Your task to perform on an android device: turn on the 12-hour format for clock Image 0: 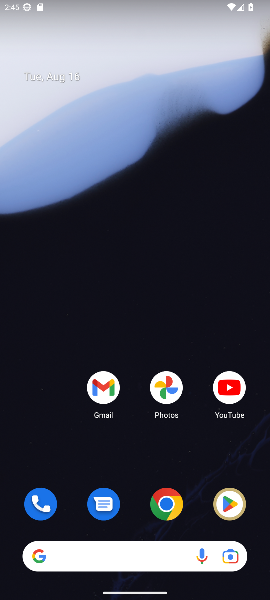
Step 0: drag from (93, 543) to (77, 316)
Your task to perform on an android device: turn on the 12-hour format for clock Image 1: 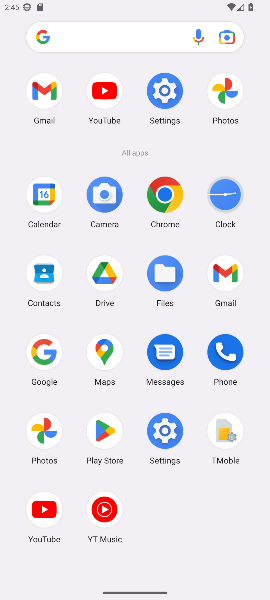
Step 1: click (214, 193)
Your task to perform on an android device: turn on the 12-hour format for clock Image 2: 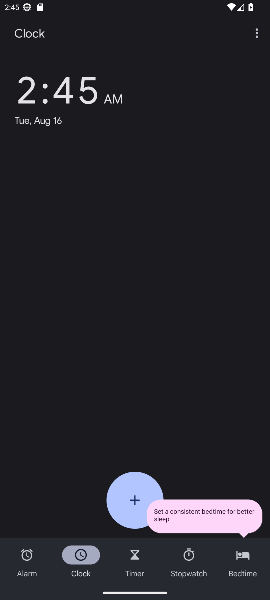
Step 2: click (260, 31)
Your task to perform on an android device: turn on the 12-hour format for clock Image 3: 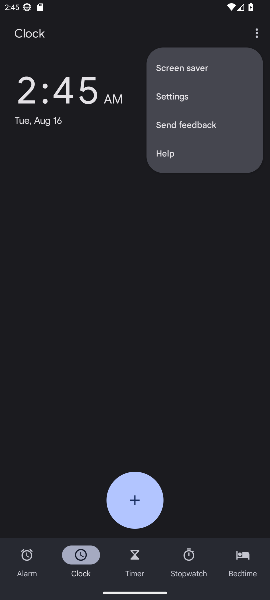
Step 3: click (161, 100)
Your task to perform on an android device: turn on the 12-hour format for clock Image 4: 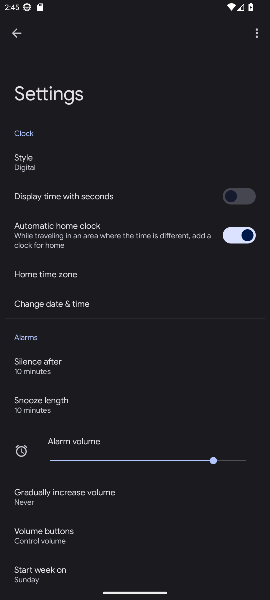
Step 4: click (68, 308)
Your task to perform on an android device: turn on the 12-hour format for clock Image 5: 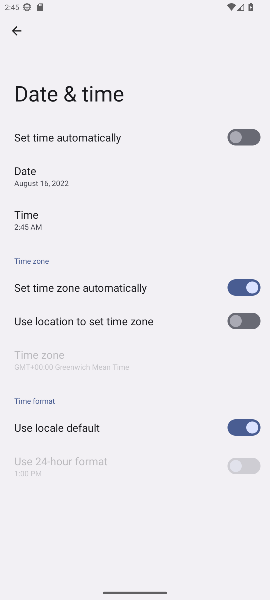
Step 5: task complete